Your task to perform on an android device: turn on data saver in the chrome app Image 0: 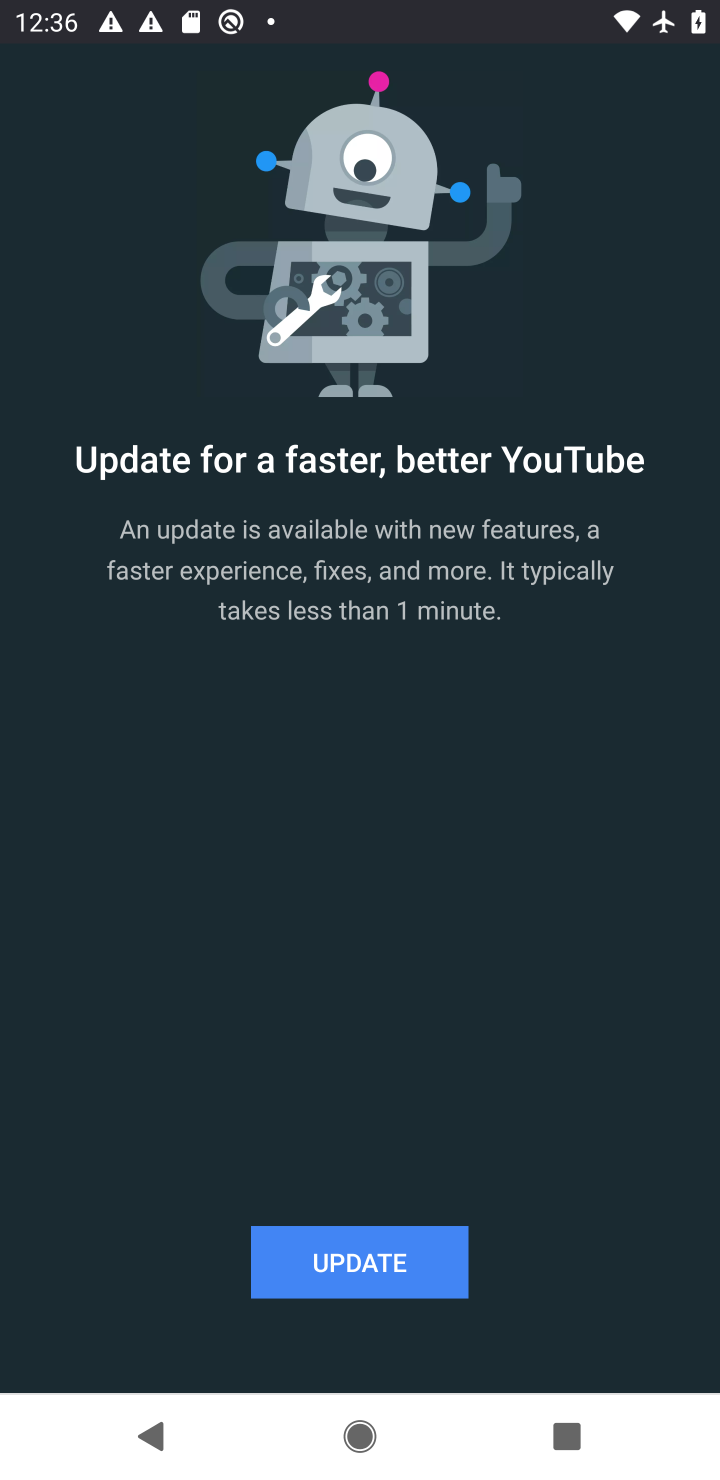
Step 0: press home button
Your task to perform on an android device: turn on data saver in the chrome app Image 1: 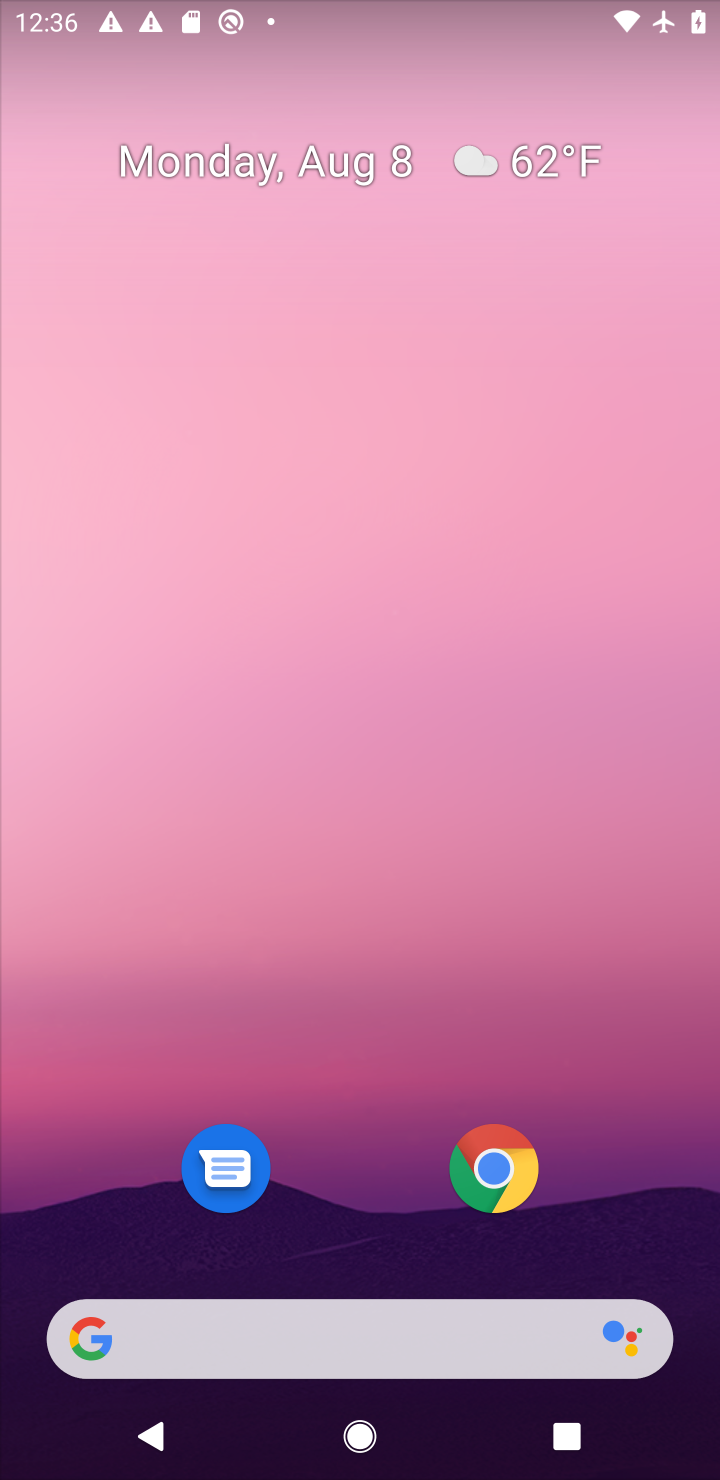
Step 1: click (455, 1172)
Your task to perform on an android device: turn on data saver in the chrome app Image 2: 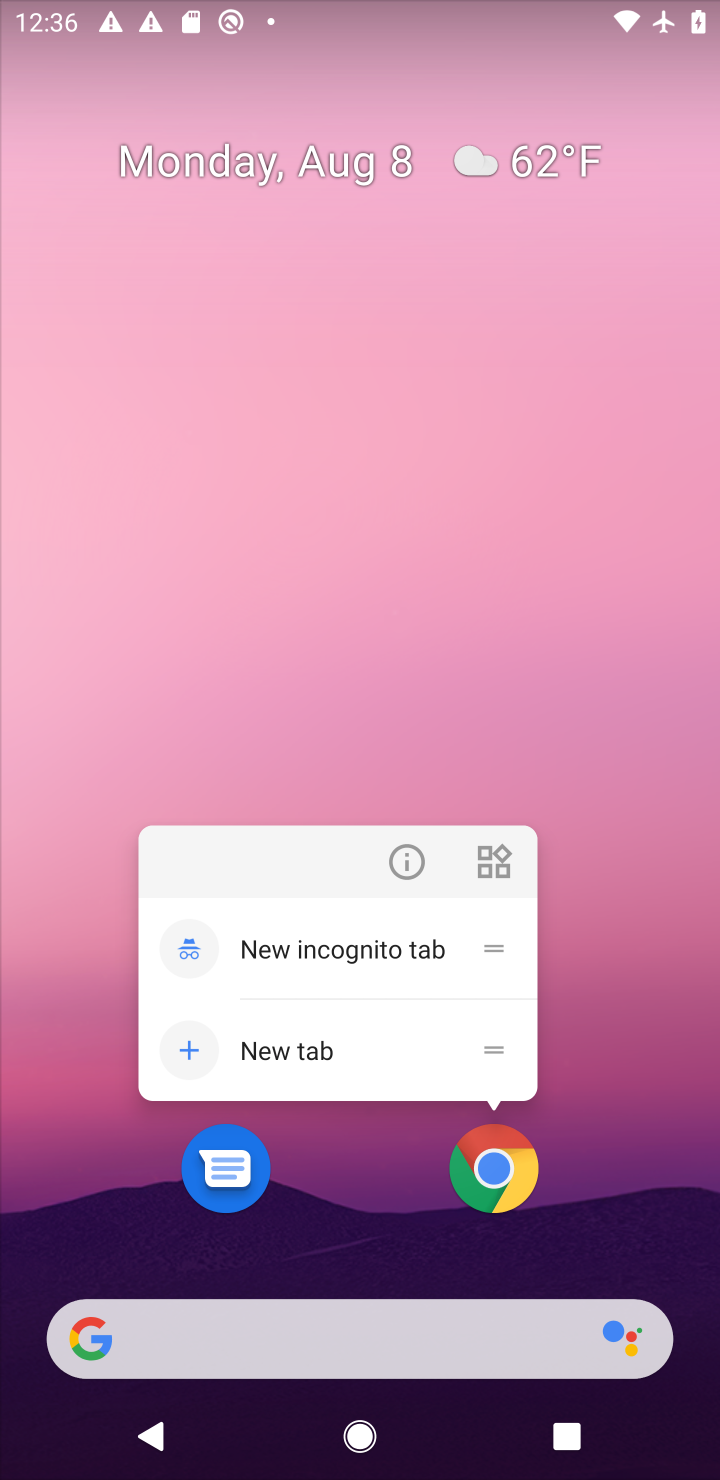
Step 2: click (477, 1172)
Your task to perform on an android device: turn on data saver in the chrome app Image 3: 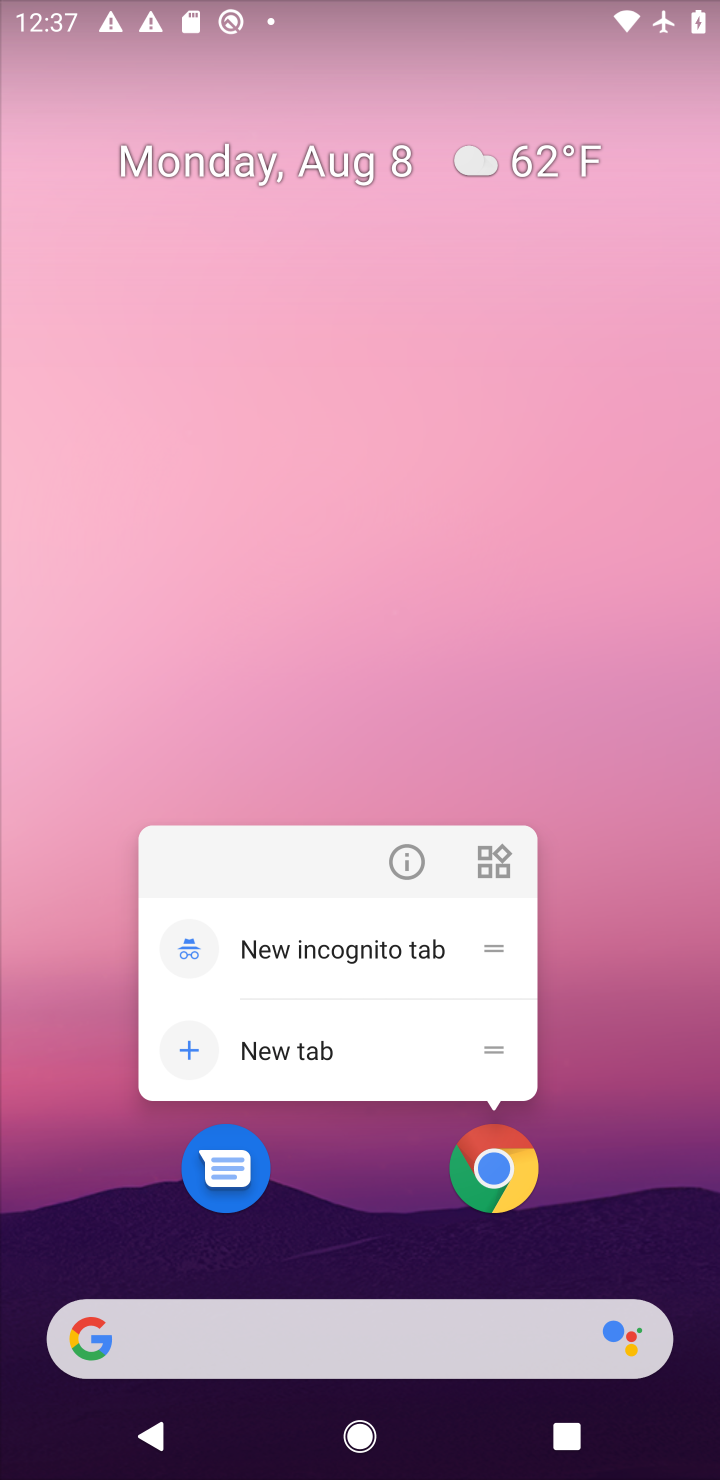
Step 3: click (477, 1172)
Your task to perform on an android device: turn on data saver in the chrome app Image 4: 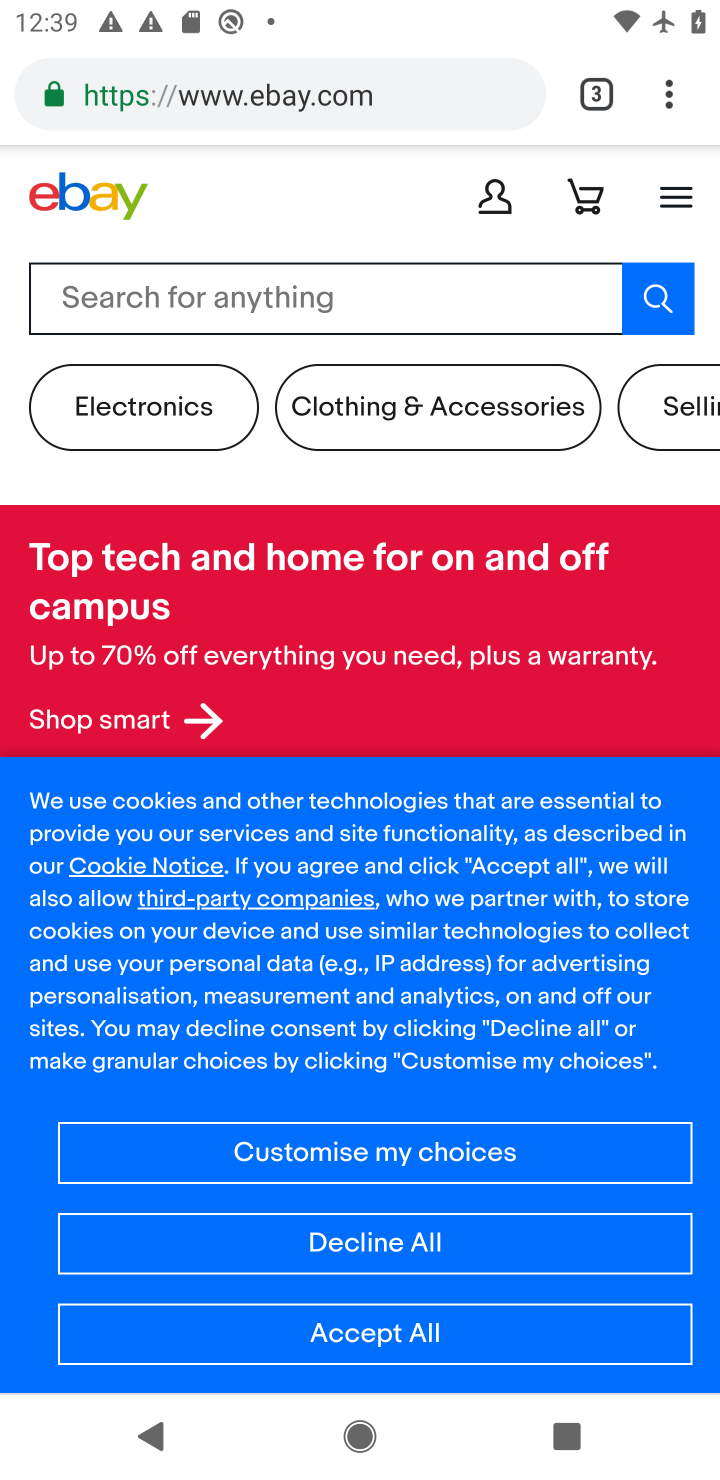
Step 4: task complete